Your task to perform on an android device: Open Google Chrome and click the shortcut for Amazon.com Image 0: 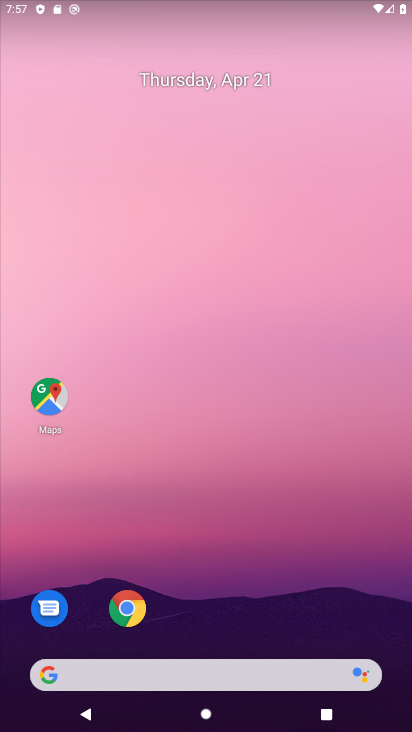
Step 0: click (127, 610)
Your task to perform on an android device: Open Google Chrome and click the shortcut for Amazon.com Image 1: 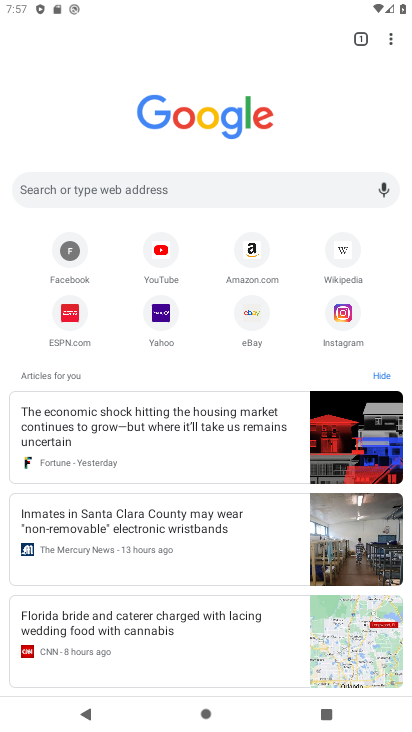
Step 1: click (248, 257)
Your task to perform on an android device: Open Google Chrome and click the shortcut for Amazon.com Image 2: 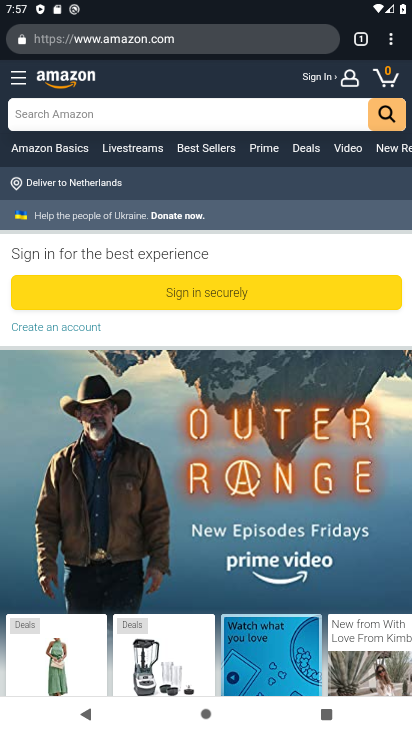
Step 2: task complete